Your task to perform on an android device: Search for vegetarian restaurants on Maps Image 0: 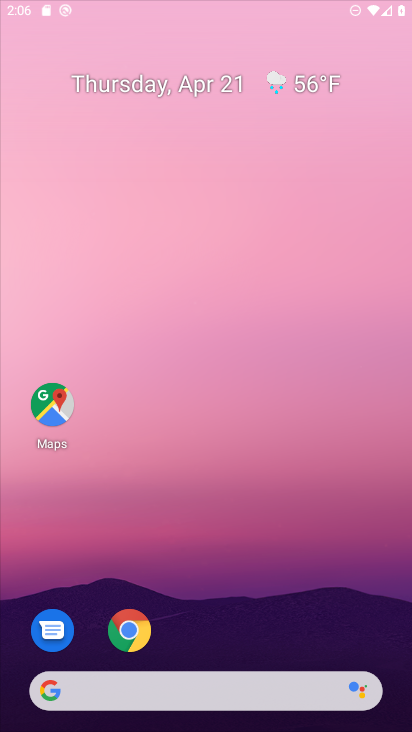
Step 0: click (138, 637)
Your task to perform on an android device: Search for vegetarian restaurants on Maps Image 1: 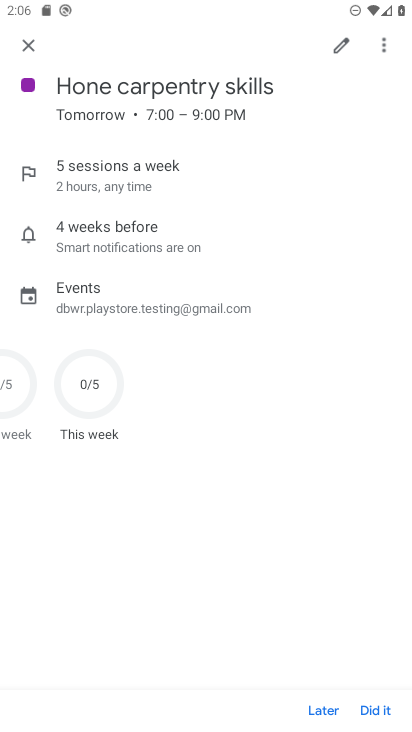
Step 1: press home button
Your task to perform on an android device: Search for vegetarian restaurants on Maps Image 2: 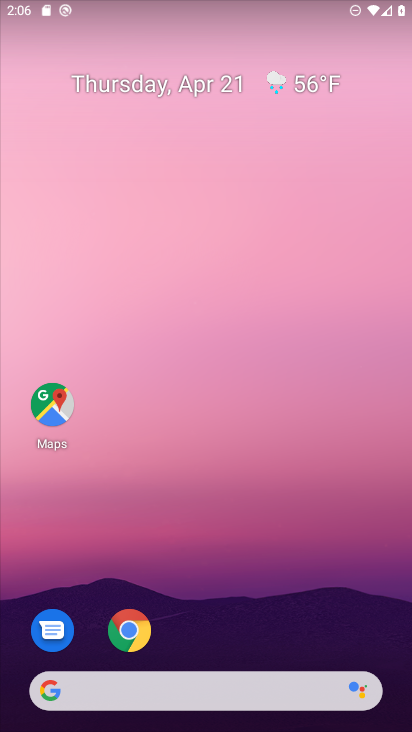
Step 2: click (61, 406)
Your task to perform on an android device: Search for vegetarian restaurants on Maps Image 3: 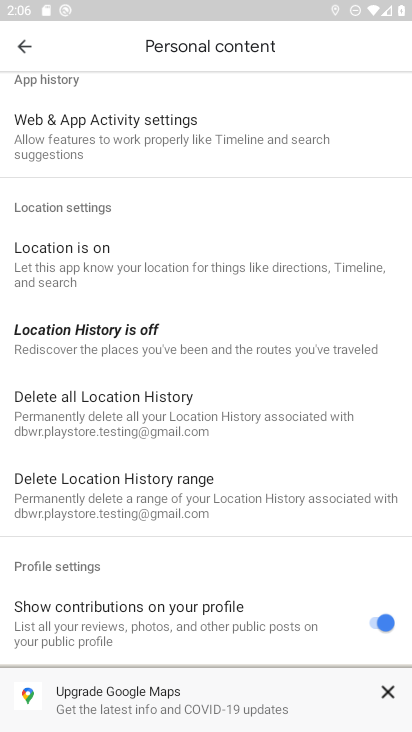
Step 3: press back button
Your task to perform on an android device: Search for vegetarian restaurants on Maps Image 4: 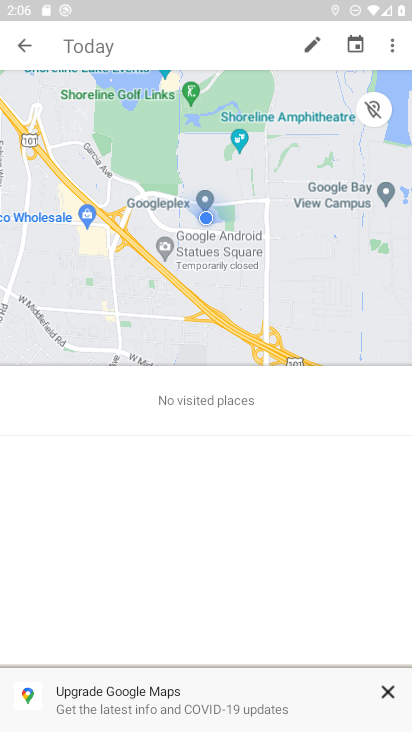
Step 4: press back button
Your task to perform on an android device: Search for vegetarian restaurants on Maps Image 5: 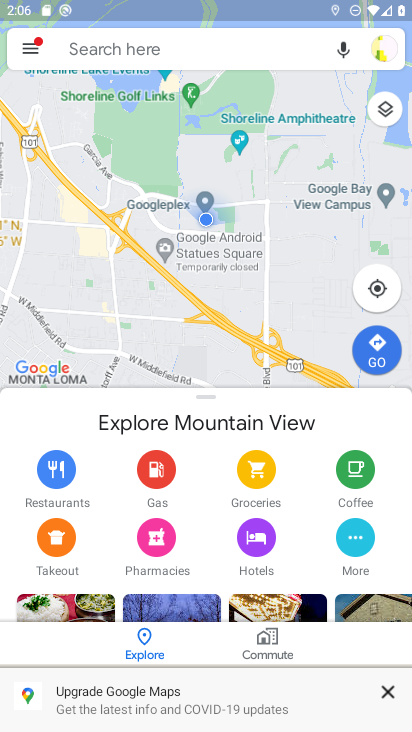
Step 5: click (156, 55)
Your task to perform on an android device: Search for vegetarian restaurants on Maps Image 6: 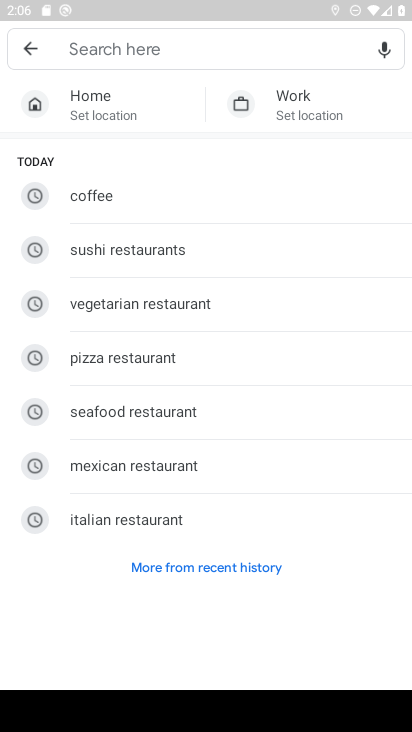
Step 6: click (189, 305)
Your task to perform on an android device: Search for vegetarian restaurants on Maps Image 7: 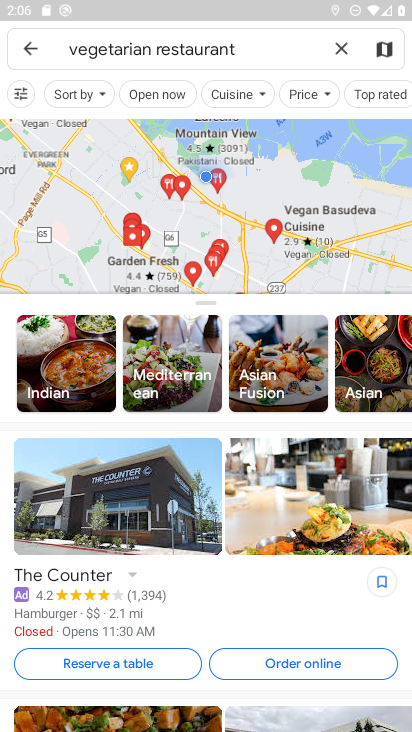
Step 7: task complete